Your task to perform on an android device: Is it going to rain today? Image 0: 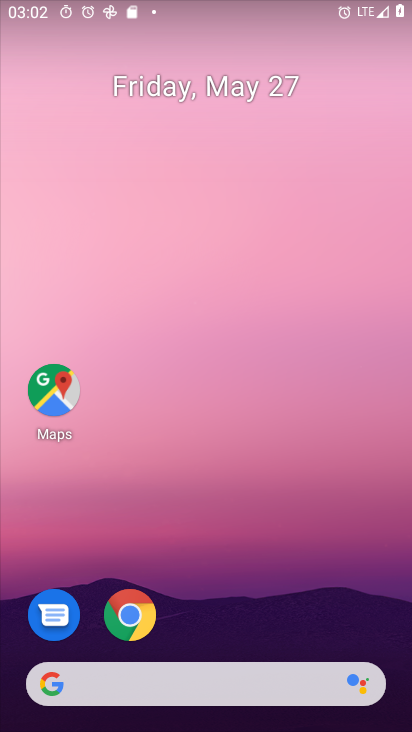
Step 0: click (224, 689)
Your task to perform on an android device: Is it going to rain today? Image 1: 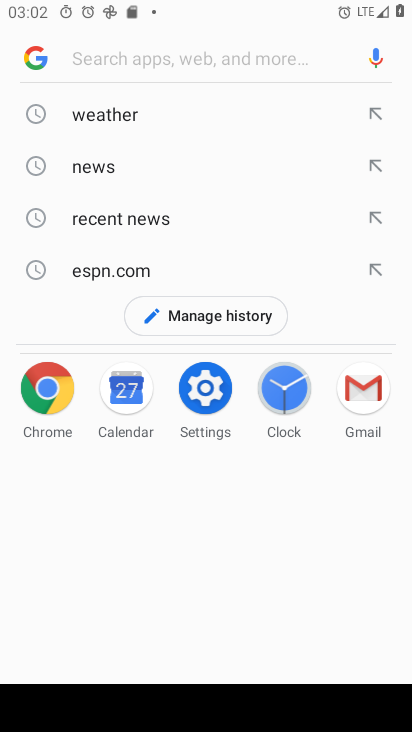
Step 1: click (117, 118)
Your task to perform on an android device: Is it going to rain today? Image 2: 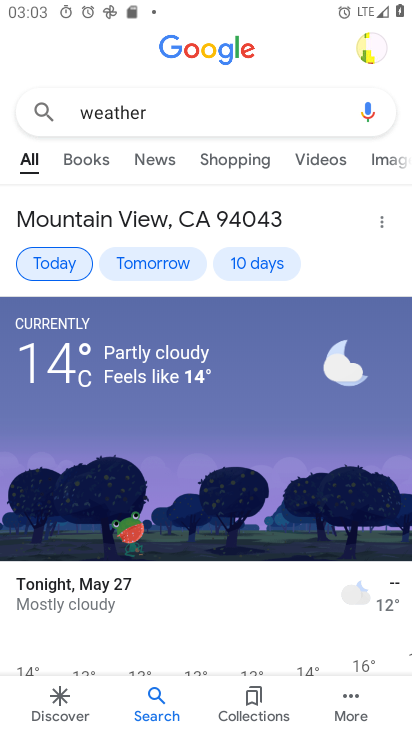
Step 2: click (62, 260)
Your task to perform on an android device: Is it going to rain today? Image 3: 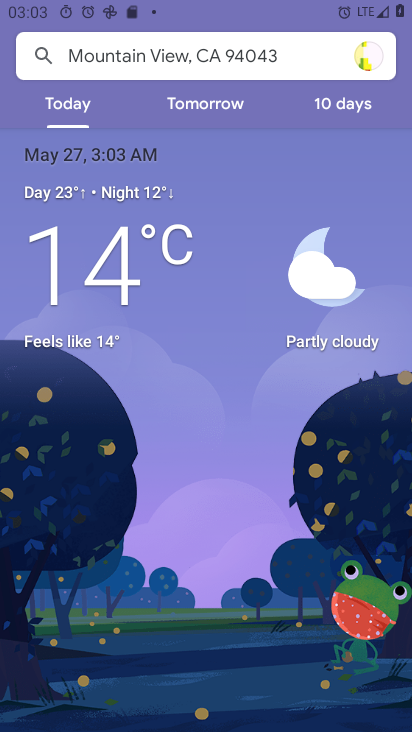
Step 3: task complete